Your task to perform on an android device: allow notifications from all sites in the chrome app Image 0: 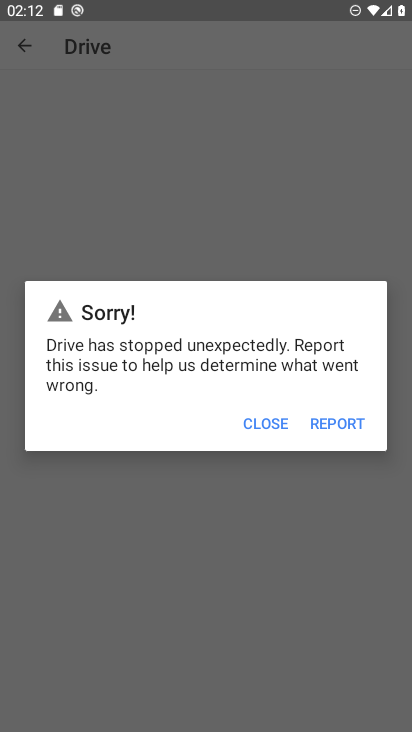
Step 0: press home button
Your task to perform on an android device: allow notifications from all sites in the chrome app Image 1: 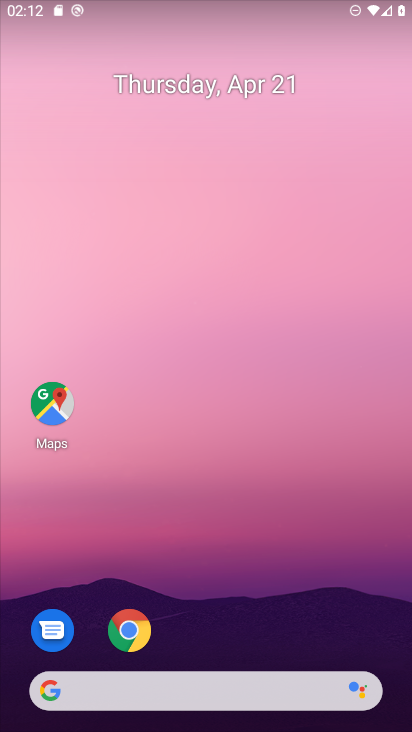
Step 1: drag from (265, 600) to (287, 109)
Your task to perform on an android device: allow notifications from all sites in the chrome app Image 2: 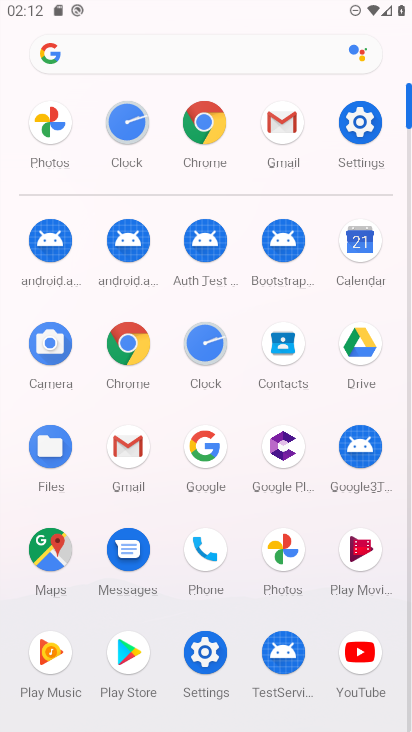
Step 2: click (201, 150)
Your task to perform on an android device: allow notifications from all sites in the chrome app Image 3: 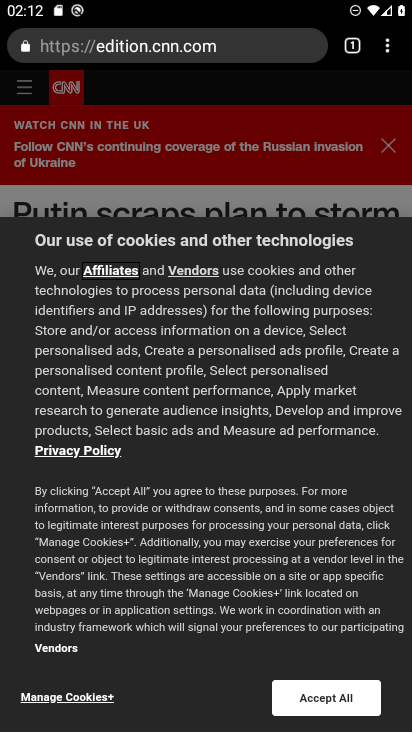
Step 3: click (391, 39)
Your task to perform on an android device: allow notifications from all sites in the chrome app Image 4: 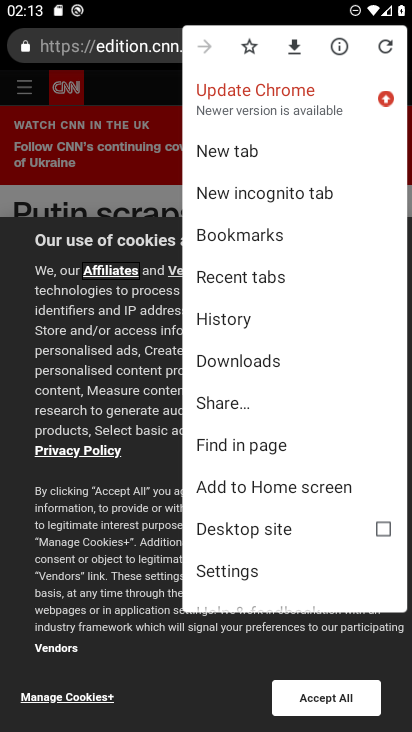
Step 4: click (271, 572)
Your task to perform on an android device: allow notifications from all sites in the chrome app Image 5: 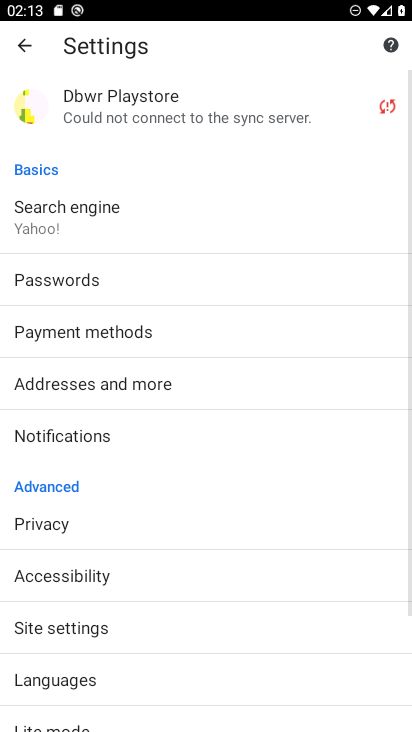
Step 5: task complete